Your task to perform on an android device: clear all cookies in the chrome app Image 0: 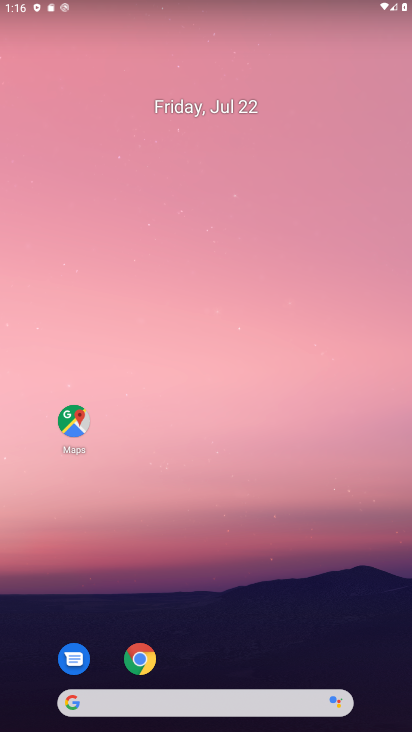
Step 0: click (145, 656)
Your task to perform on an android device: clear all cookies in the chrome app Image 1: 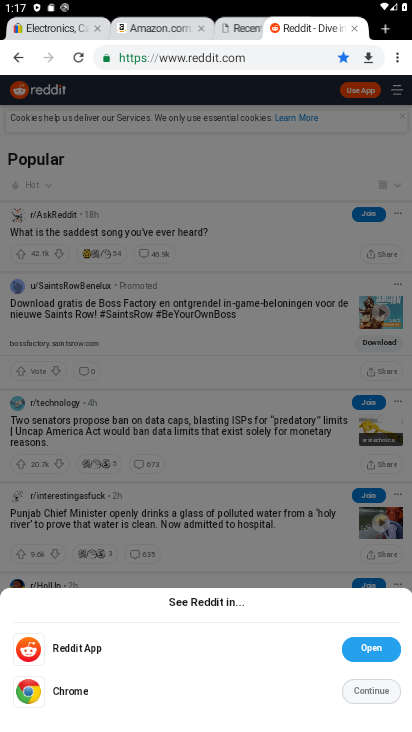
Step 1: click (138, 687)
Your task to perform on an android device: clear all cookies in the chrome app Image 2: 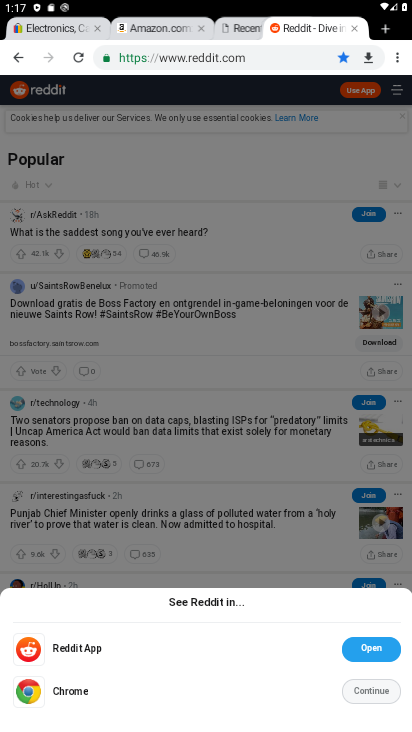
Step 2: click (374, 700)
Your task to perform on an android device: clear all cookies in the chrome app Image 3: 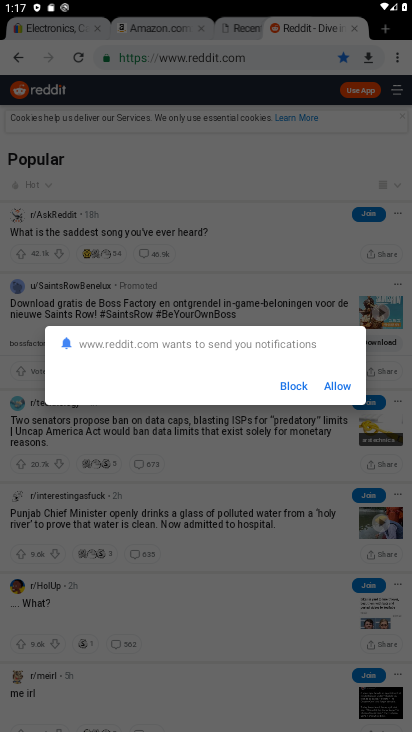
Step 3: click (403, 55)
Your task to perform on an android device: clear all cookies in the chrome app Image 4: 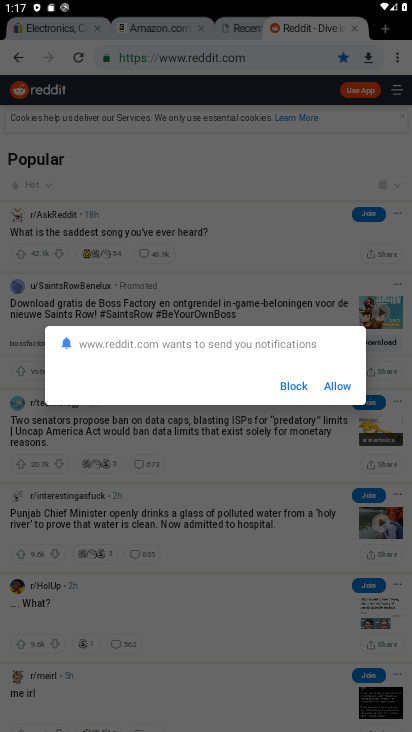
Step 4: click (326, 394)
Your task to perform on an android device: clear all cookies in the chrome app Image 5: 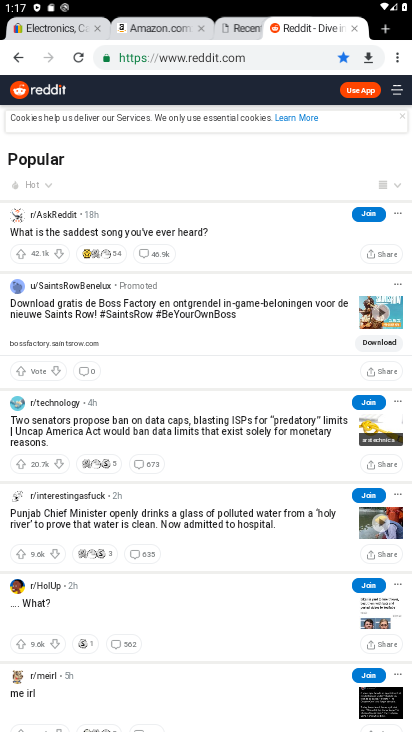
Step 5: click (399, 63)
Your task to perform on an android device: clear all cookies in the chrome app Image 6: 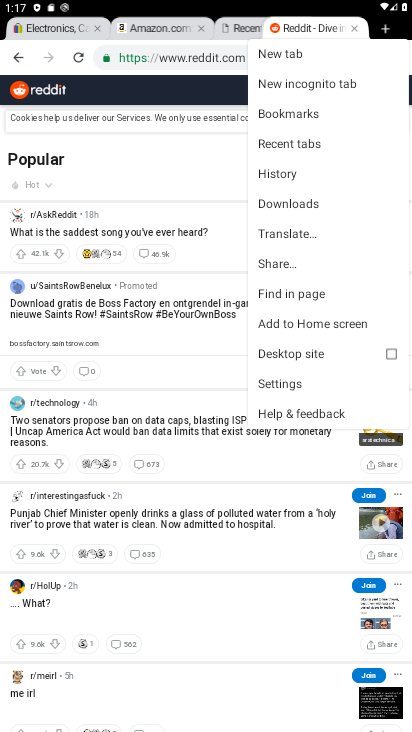
Step 6: click (310, 371)
Your task to perform on an android device: clear all cookies in the chrome app Image 7: 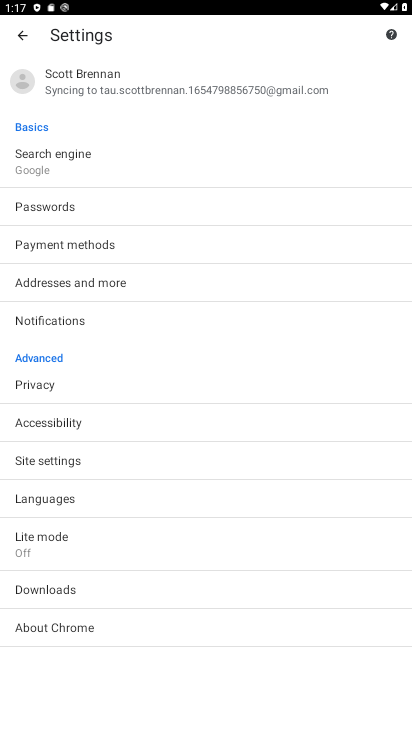
Step 7: task complete